Your task to perform on an android device: Open Yahoo.com Image 0: 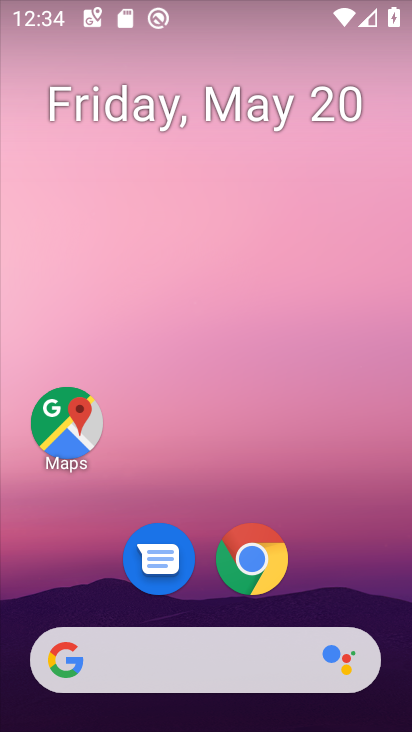
Step 0: click (261, 576)
Your task to perform on an android device: Open Yahoo.com Image 1: 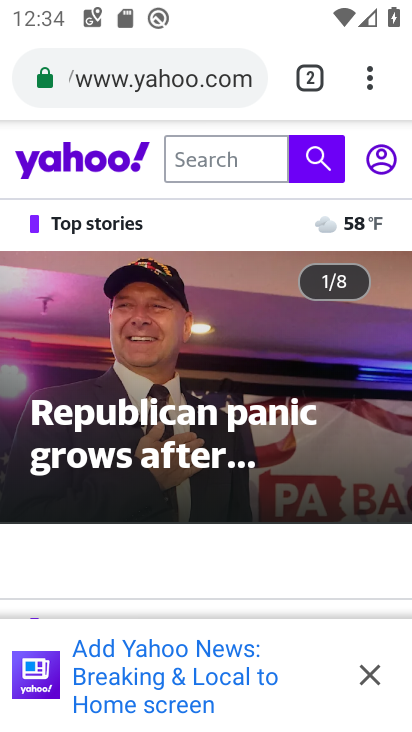
Step 1: task complete